Your task to perform on an android device: Show the shopping cart on bestbuy. Search for razer naga on bestbuy, select the first entry, add it to the cart, then select checkout. Image 0: 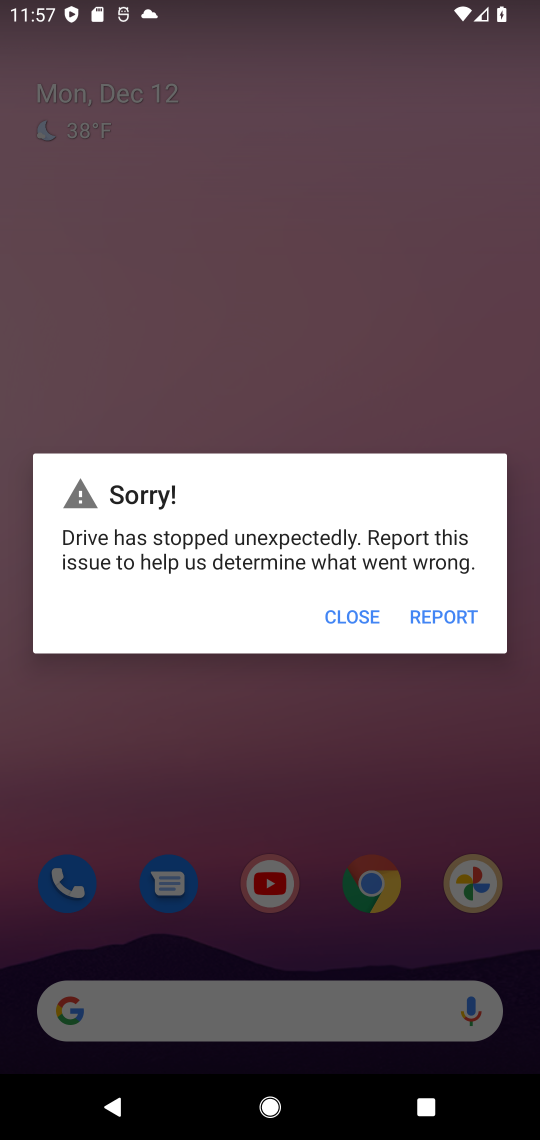
Step 0: press home button
Your task to perform on an android device: Show the shopping cart on bestbuy. Search for razer naga on bestbuy, select the first entry, add it to the cart, then select checkout. Image 1: 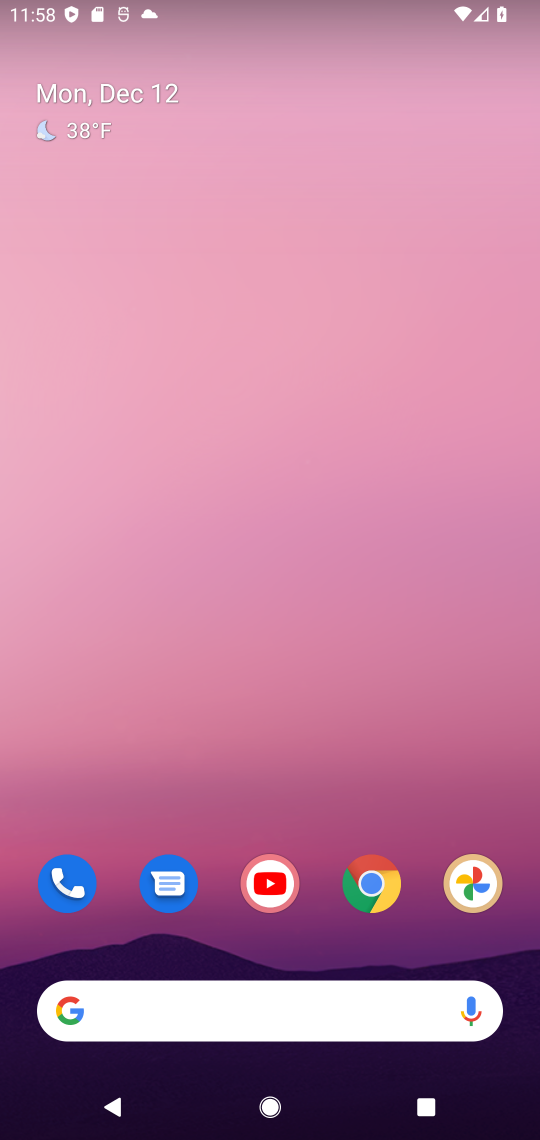
Step 1: drag from (242, 889) to (267, 138)
Your task to perform on an android device: Show the shopping cart on bestbuy. Search for razer naga on bestbuy, select the first entry, add it to the cart, then select checkout. Image 2: 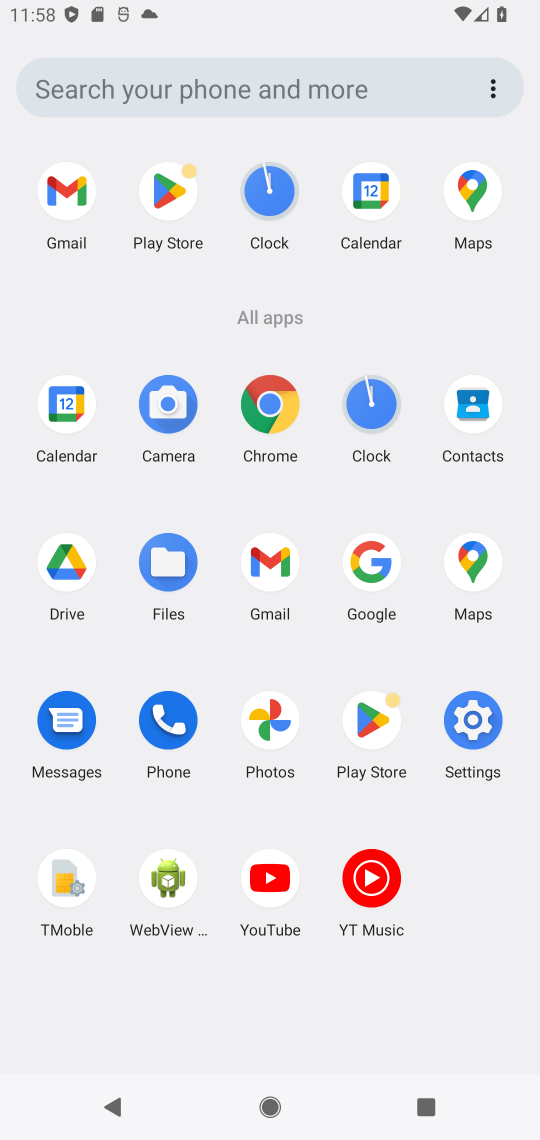
Step 2: click (374, 550)
Your task to perform on an android device: Show the shopping cart on bestbuy. Search for razer naga on bestbuy, select the first entry, add it to the cart, then select checkout. Image 3: 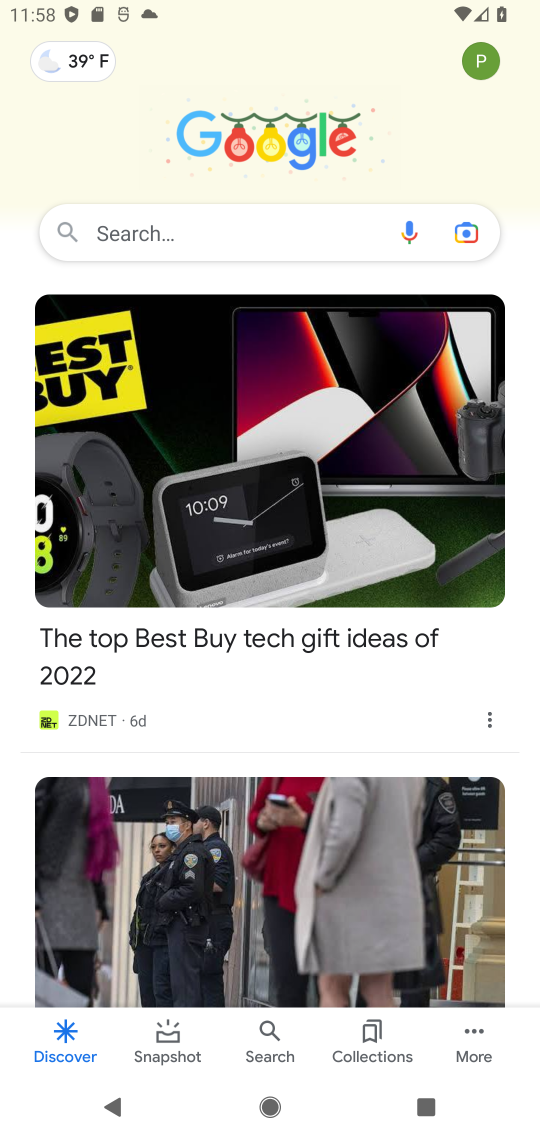
Step 3: click (297, 223)
Your task to perform on an android device: Show the shopping cart on bestbuy. Search for razer naga on bestbuy, select the first entry, add it to the cart, then select checkout. Image 4: 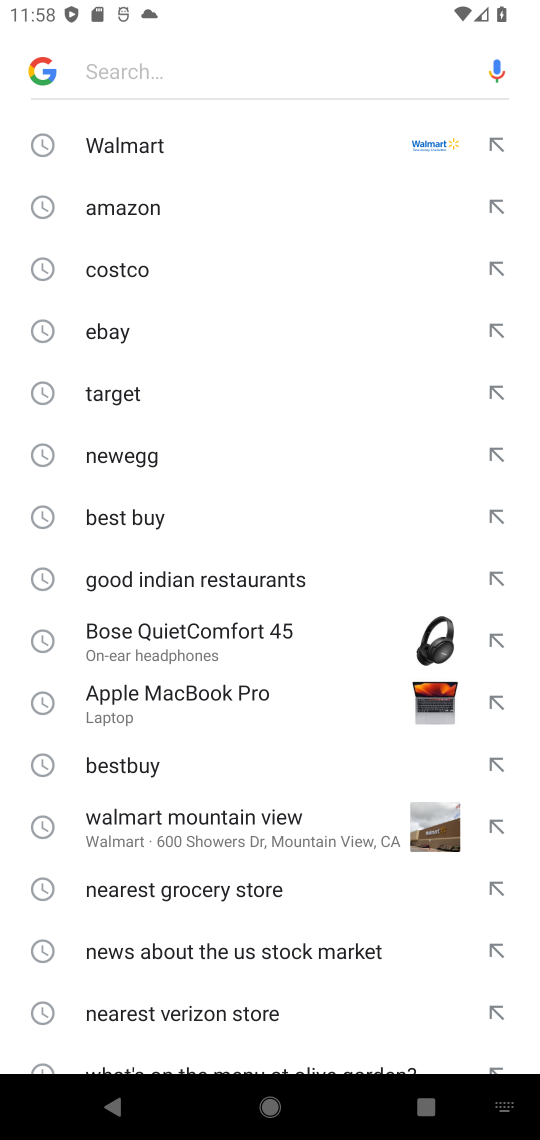
Step 4: click (116, 519)
Your task to perform on an android device: Show the shopping cart on bestbuy. Search for razer naga on bestbuy, select the first entry, add it to the cart, then select checkout. Image 5: 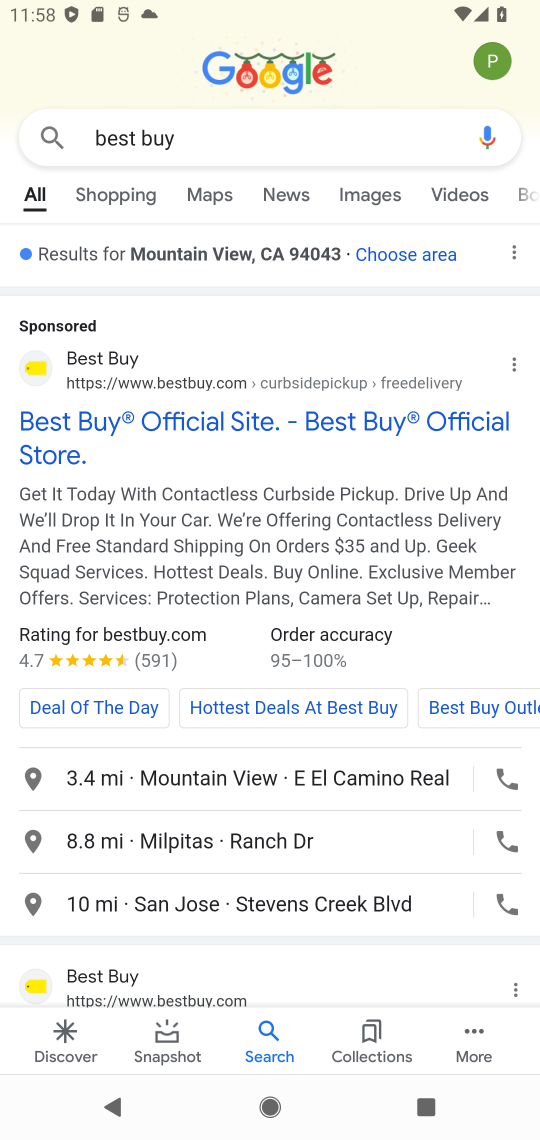
Step 5: click (147, 424)
Your task to perform on an android device: Show the shopping cart on bestbuy. Search for razer naga on bestbuy, select the first entry, add it to the cart, then select checkout. Image 6: 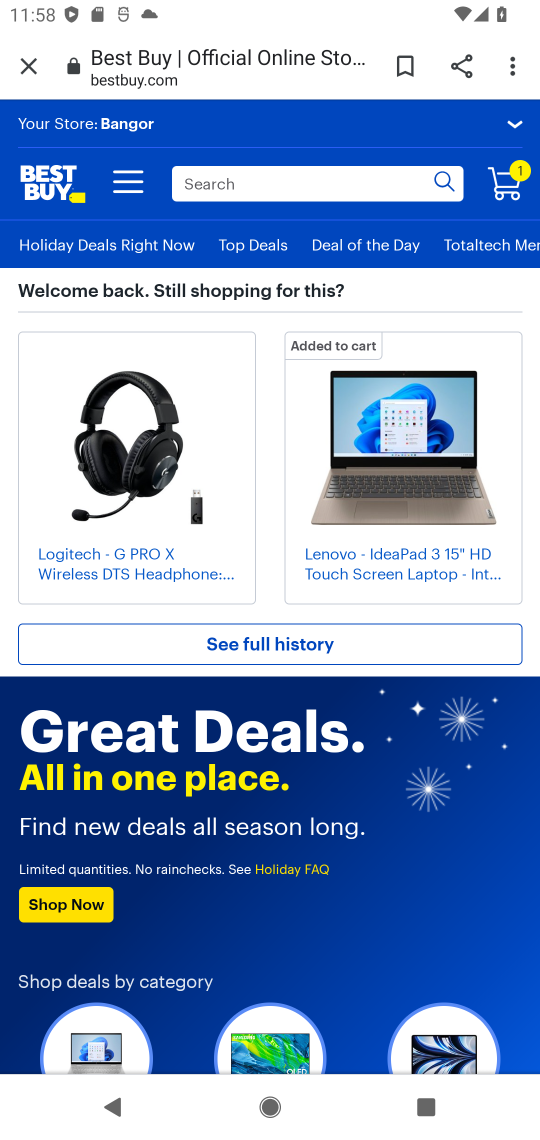
Step 6: click (515, 167)
Your task to perform on an android device: Show the shopping cart on bestbuy. Search for razer naga on bestbuy, select the first entry, add it to the cart, then select checkout. Image 7: 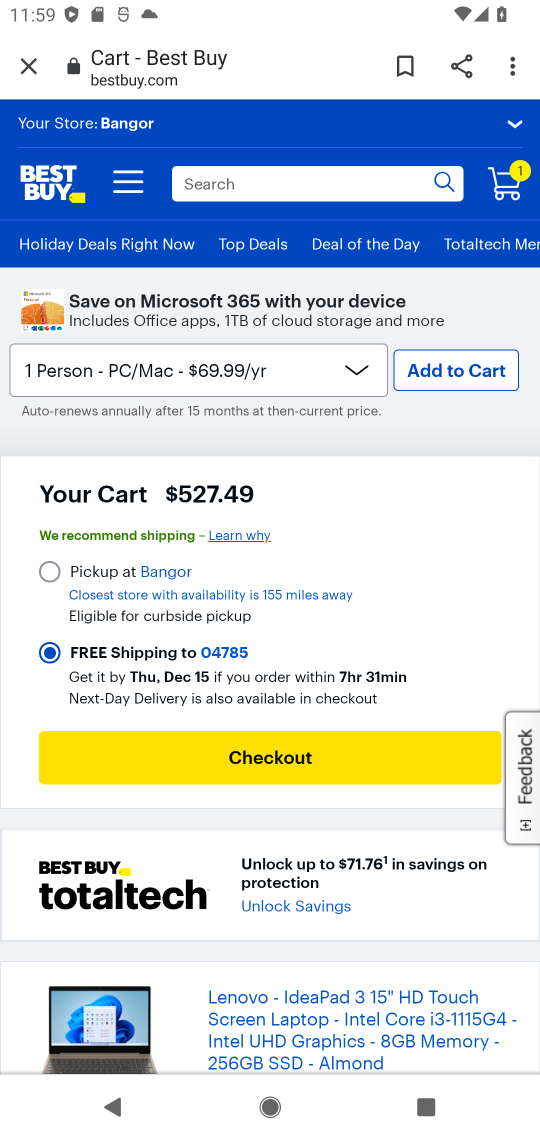
Step 7: click (367, 175)
Your task to perform on an android device: Show the shopping cart on bestbuy. Search for razer naga on bestbuy, select the first entry, add it to the cart, then select checkout. Image 8: 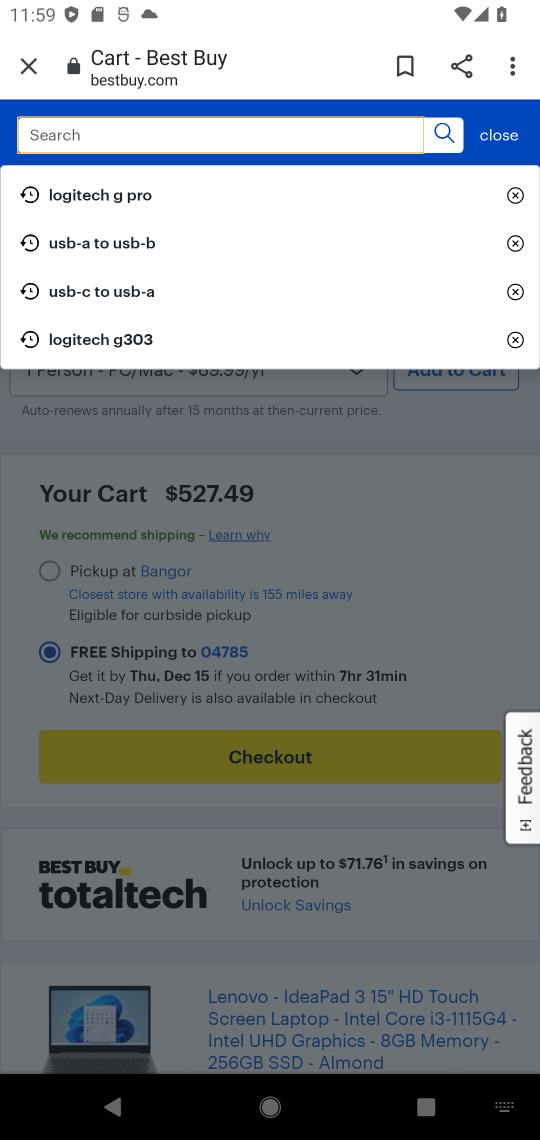
Step 8: type "bestbuy"
Your task to perform on an android device: Show the shopping cart on bestbuy. Search for razer naga on bestbuy, select the first entry, add it to the cart, then select checkout. Image 9: 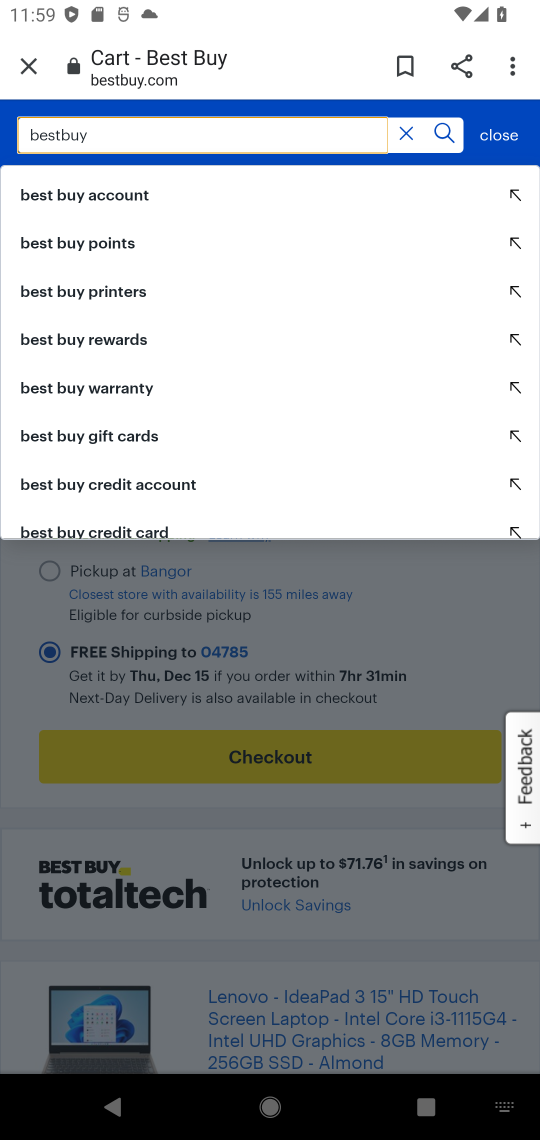
Step 9: click (450, 129)
Your task to perform on an android device: Show the shopping cart on bestbuy. Search for razer naga on bestbuy, select the first entry, add it to the cart, then select checkout. Image 10: 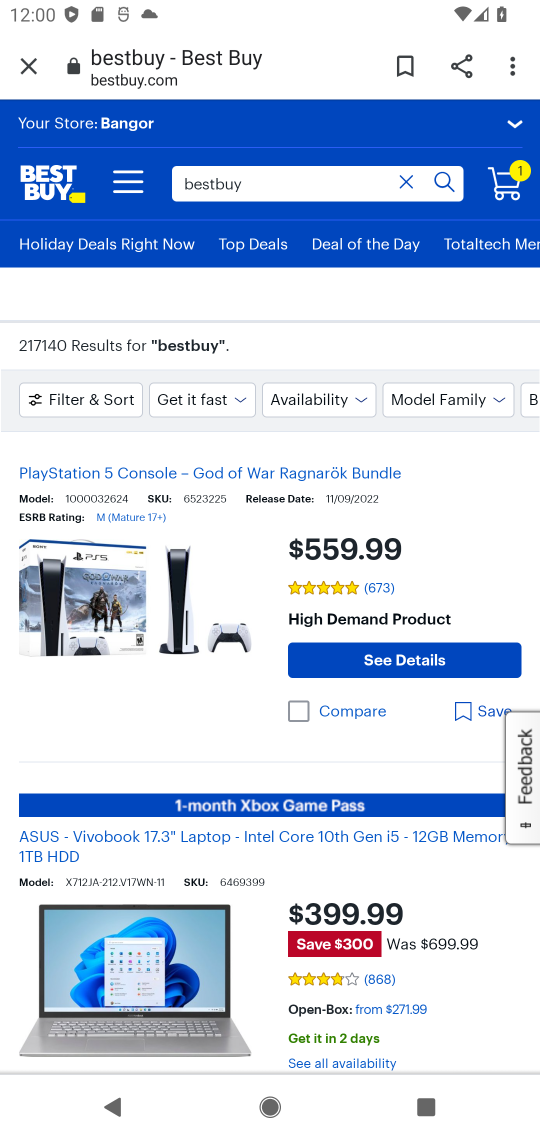
Step 10: drag from (317, 606) to (353, 330)
Your task to perform on an android device: Show the shopping cart on bestbuy. Search for razer naga on bestbuy, select the first entry, add it to the cart, then select checkout. Image 11: 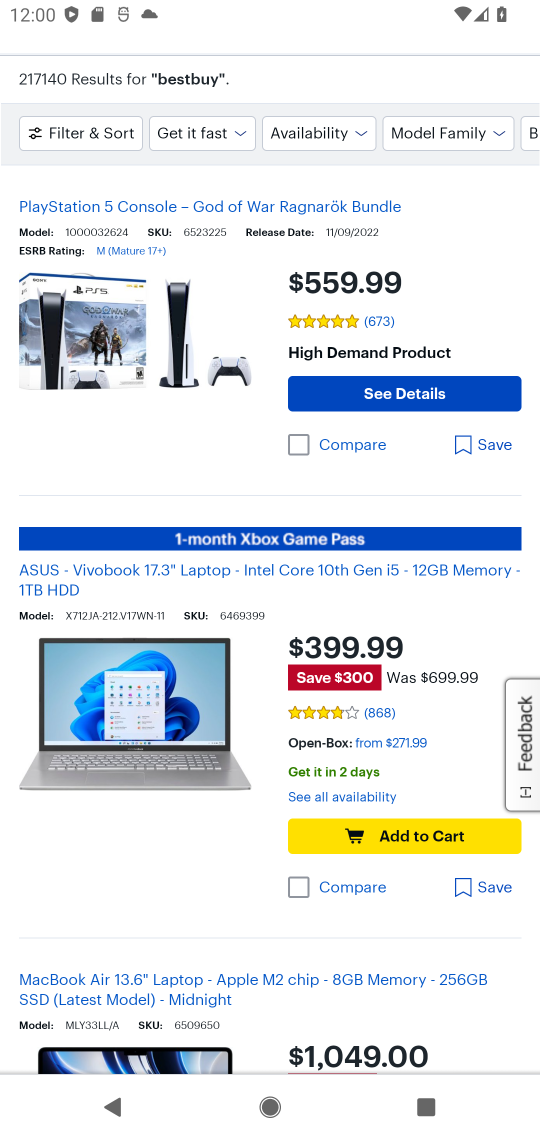
Step 11: click (409, 835)
Your task to perform on an android device: Show the shopping cart on bestbuy. Search for razer naga on bestbuy, select the first entry, add it to the cart, then select checkout. Image 12: 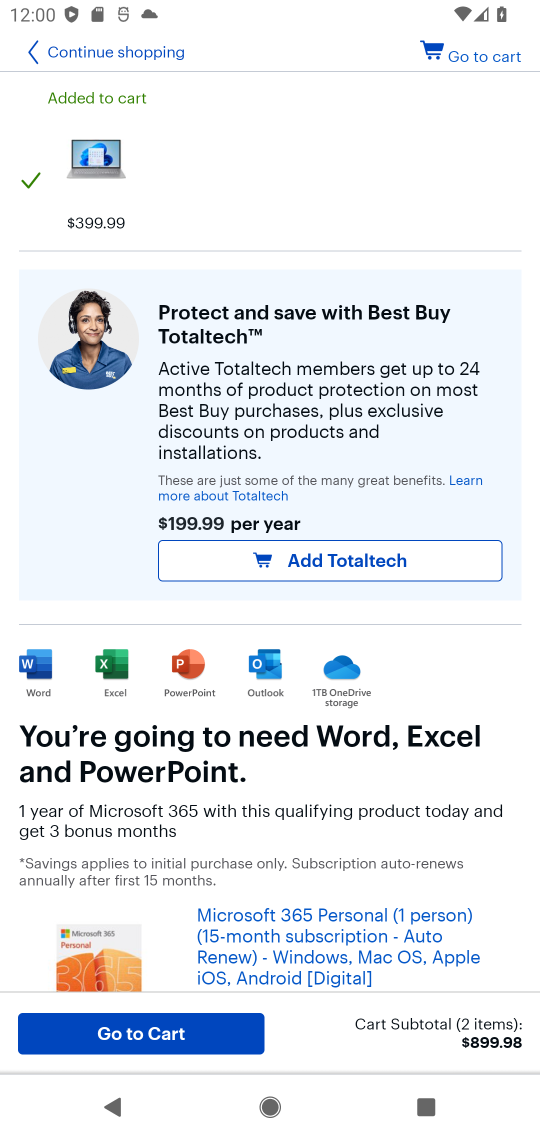
Step 12: click (185, 1048)
Your task to perform on an android device: Show the shopping cart on bestbuy. Search for razer naga on bestbuy, select the first entry, add it to the cart, then select checkout. Image 13: 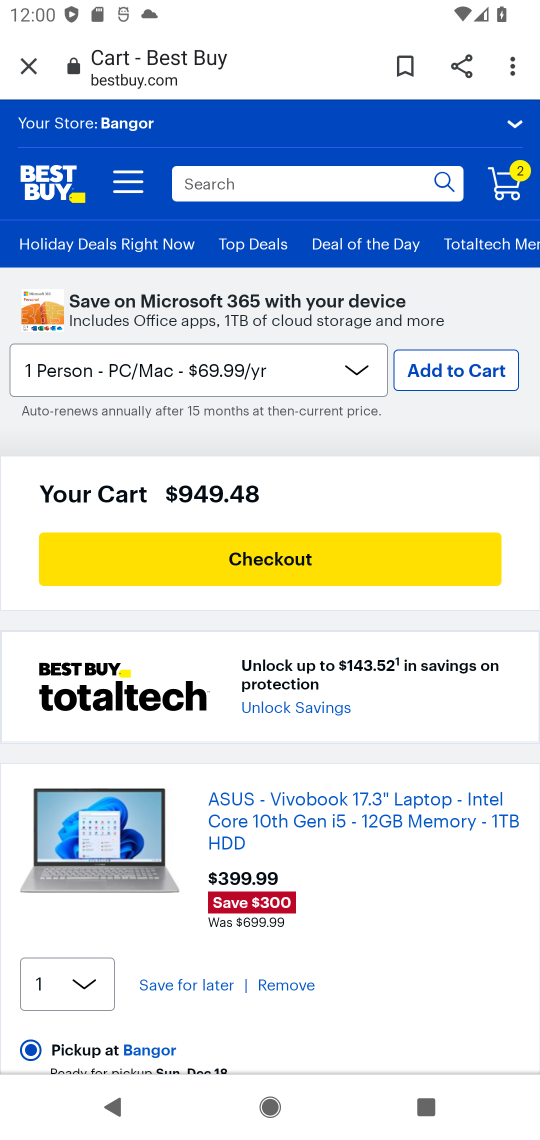
Step 13: click (279, 553)
Your task to perform on an android device: Show the shopping cart on bestbuy. Search for razer naga on bestbuy, select the first entry, add it to the cart, then select checkout. Image 14: 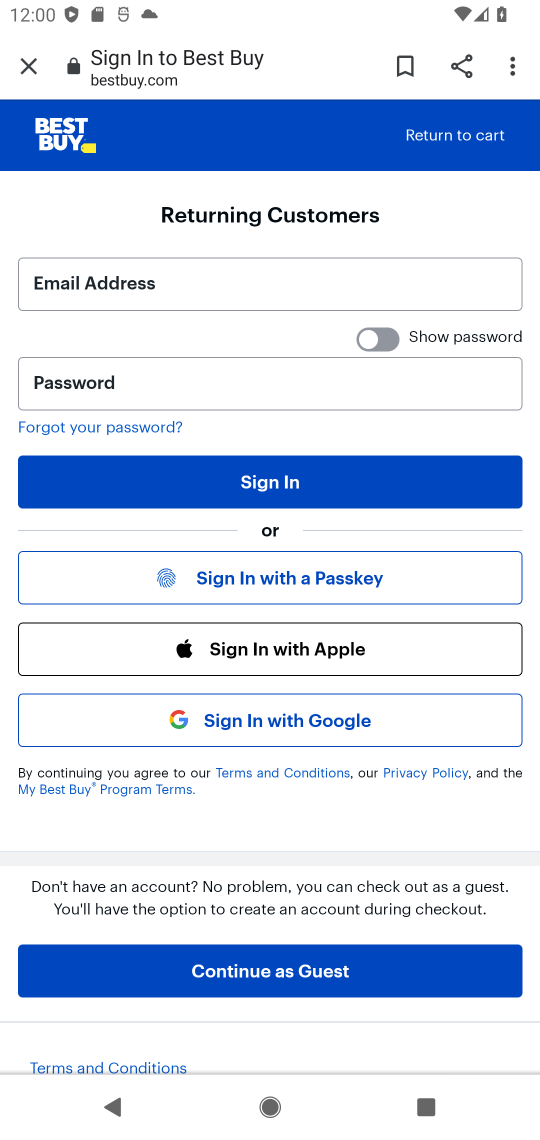
Step 14: task complete